Your task to perform on an android device: Go to Google Image 0: 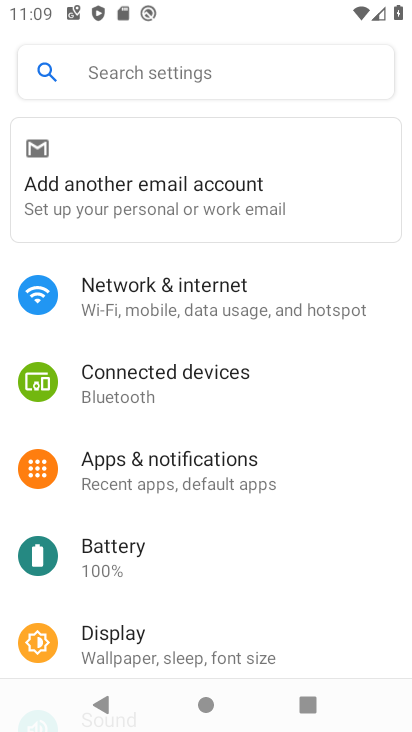
Step 0: press home button
Your task to perform on an android device: Go to Google Image 1: 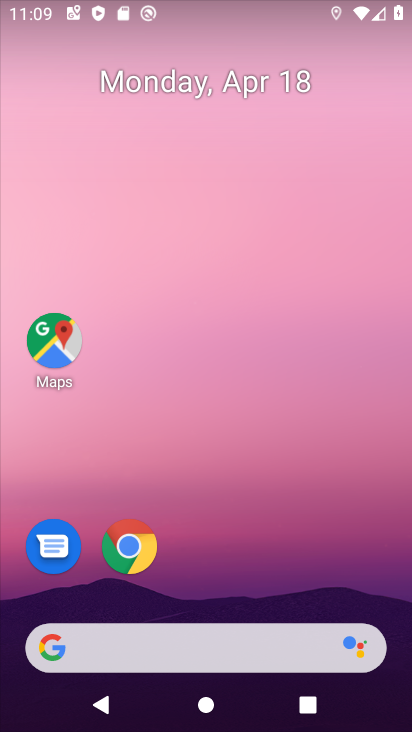
Step 1: click (134, 559)
Your task to perform on an android device: Go to Google Image 2: 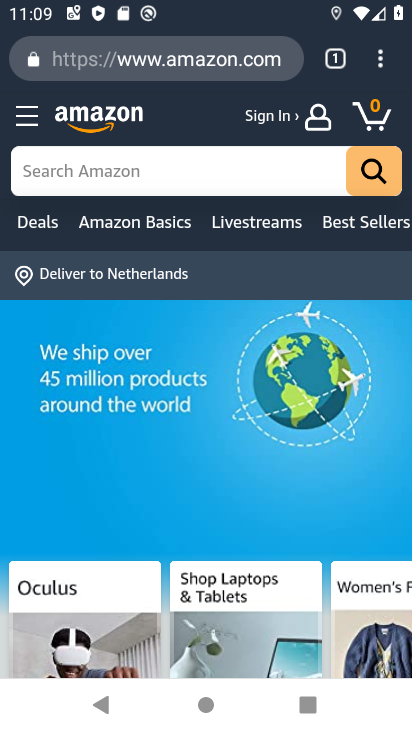
Step 2: click (149, 58)
Your task to perform on an android device: Go to Google Image 3: 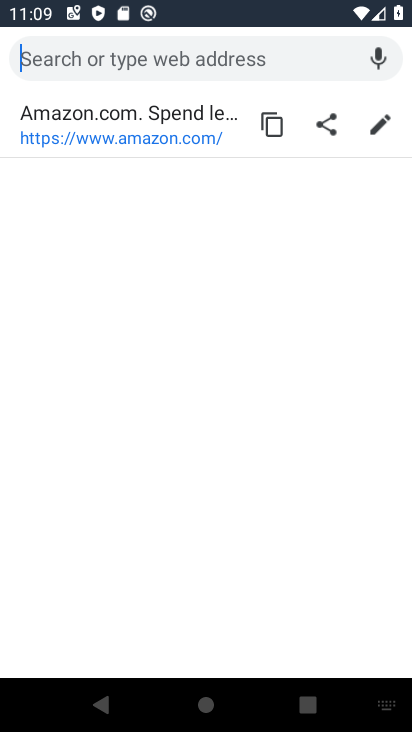
Step 3: type "google.com"
Your task to perform on an android device: Go to Google Image 4: 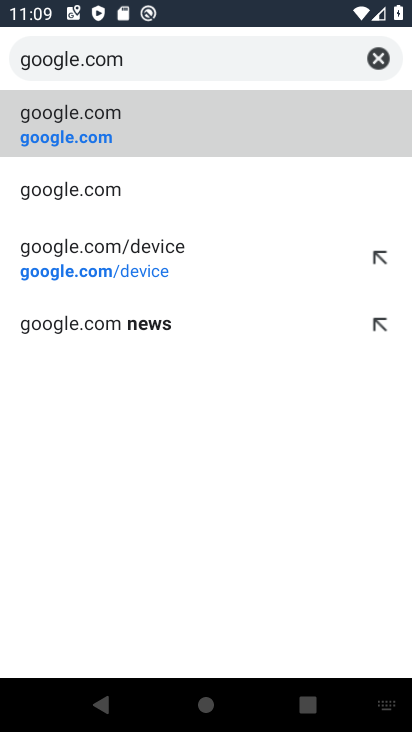
Step 4: click (277, 138)
Your task to perform on an android device: Go to Google Image 5: 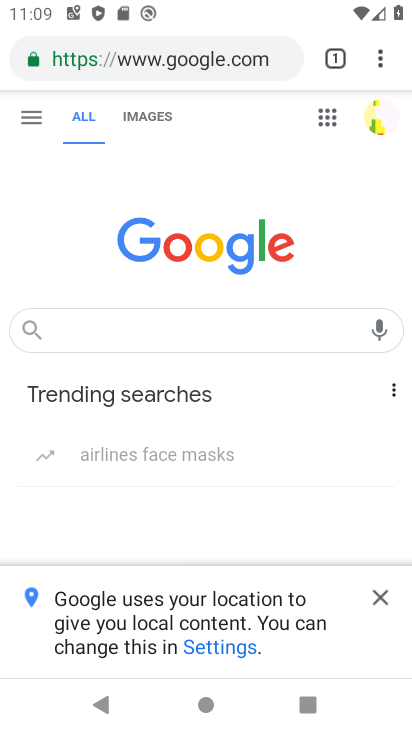
Step 5: task complete